Your task to perform on an android device: toggle wifi Image 0: 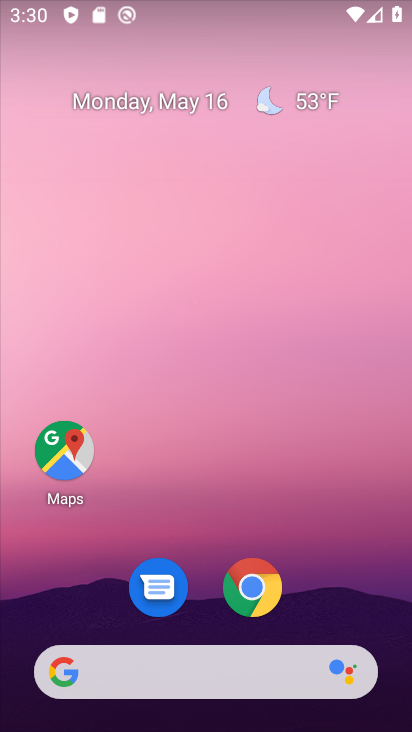
Step 0: drag from (189, 598) to (338, 93)
Your task to perform on an android device: toggle wifi Image 1: 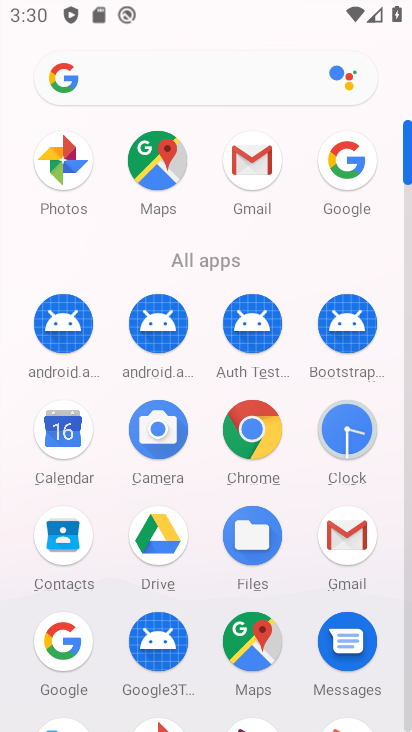
Step 1: drag from (208, 638) to (279, 341)
Your task to perform on an android device: toggle wifi Image 2: 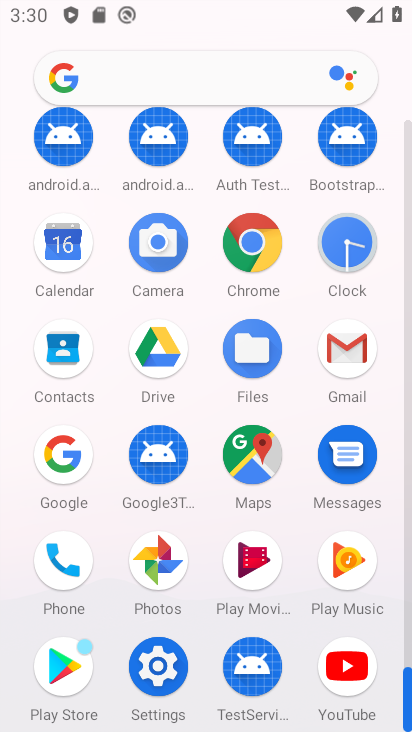
Step 2: click (157, 677)
Your task to perform on an android device: toggle wifi Image 3: 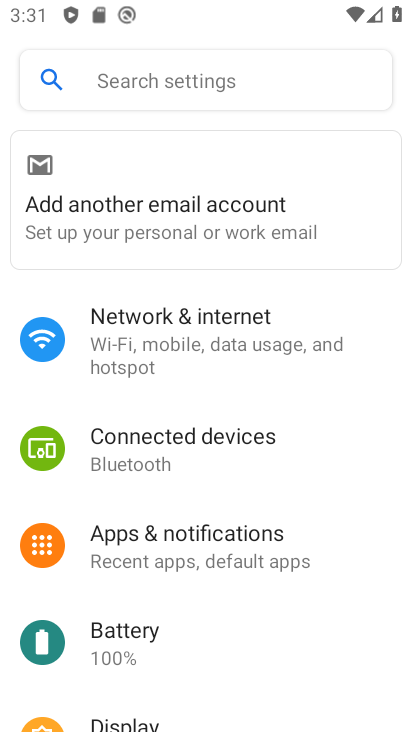
Step 3: click (233, 325)
Your task to perform on an android device: toggle wifi Image 4: 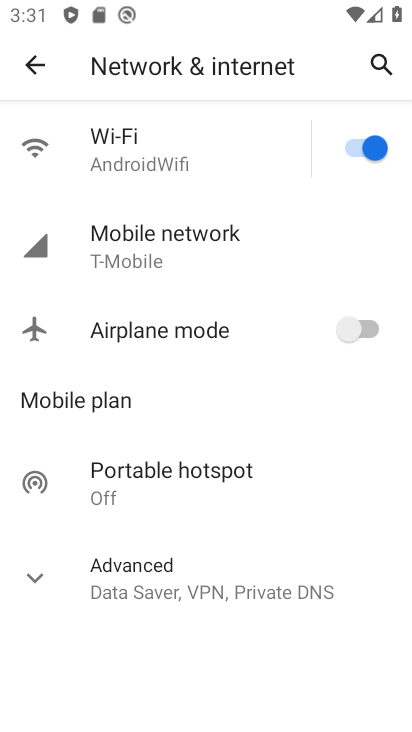
Step 4: click (352, 148)
Your task to perform on an android device: toggle wifi Image 5: 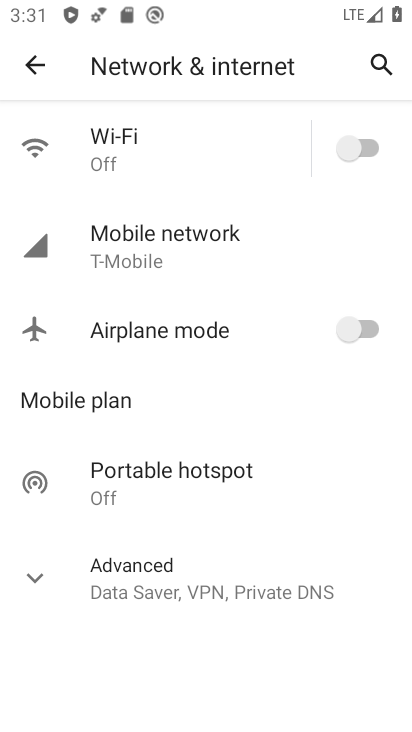
Step 5: task complete